Your task to perform on an android device: check storage Image 0: 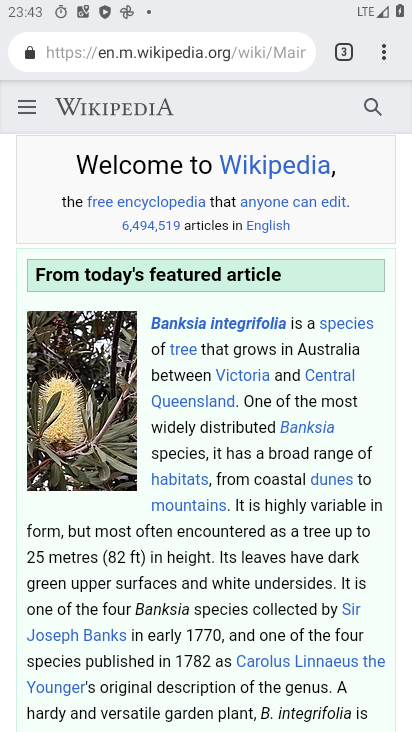
Step 0: press home button
Your task to perform on an android device: check storage Image 1: 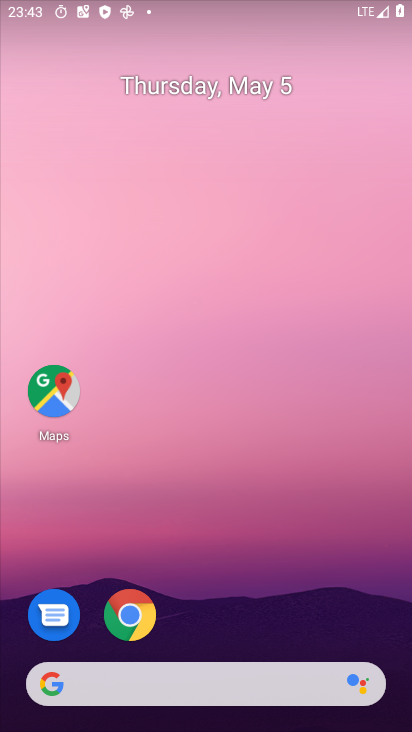
Step 1: drag from (229, 589) to (263, 0)
Your task to perform on an android device: check storage Image 2: 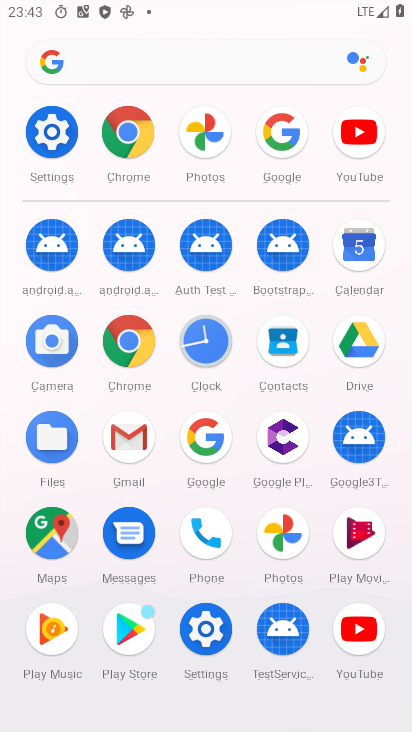
Step 2: click (54, 132)
Your task to perform on an android device: check storage Image 3: 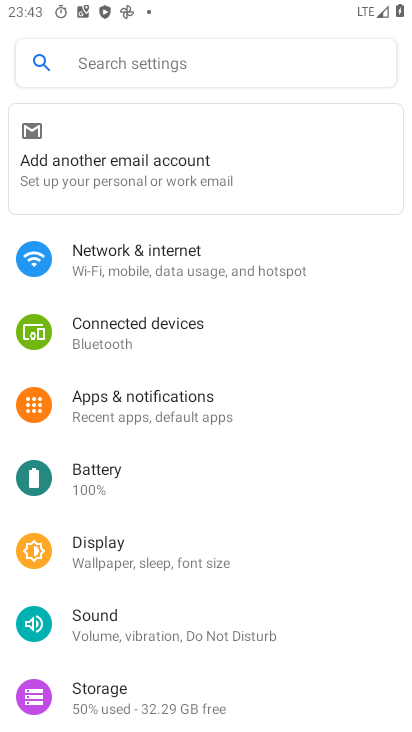
Step 3: click (161, 713)
Your task to perform on an android device: check storage Image 4: 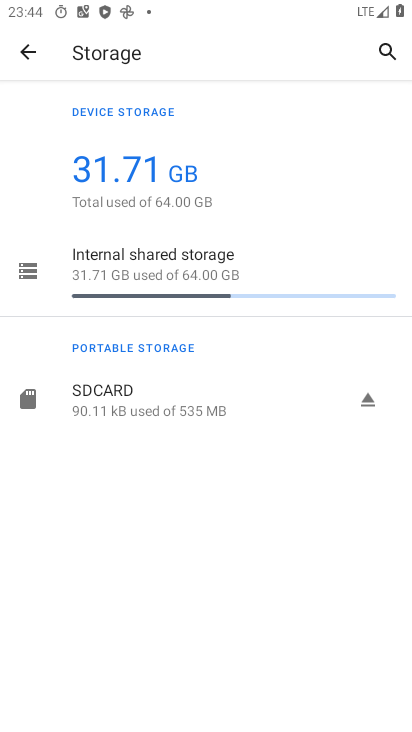
Step 4: task complete